Your task to perform on an android device: change timer sound Image 0: 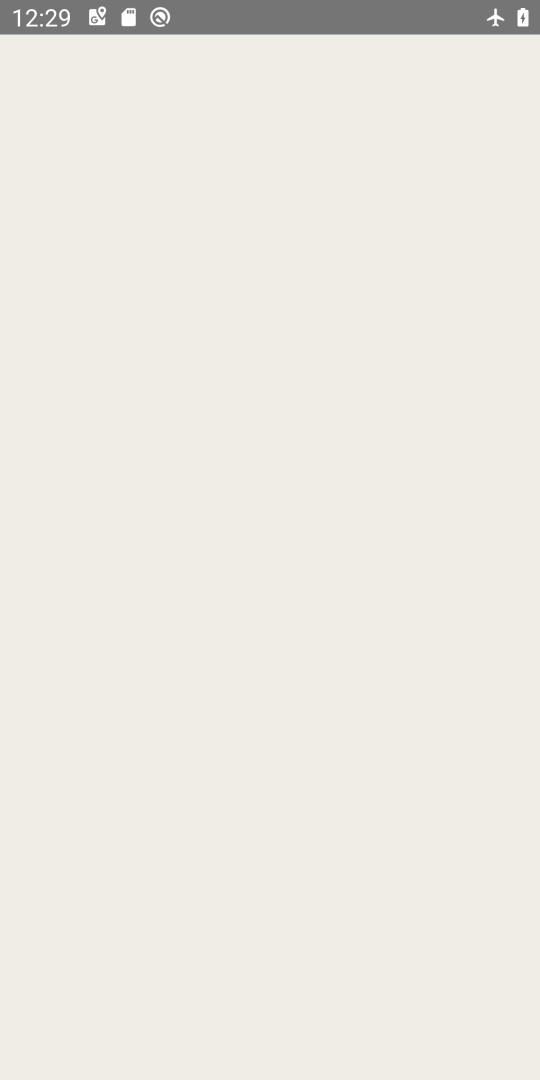
Step 0: press home button
Your task to perform on an android device: change timer sound Image 1: 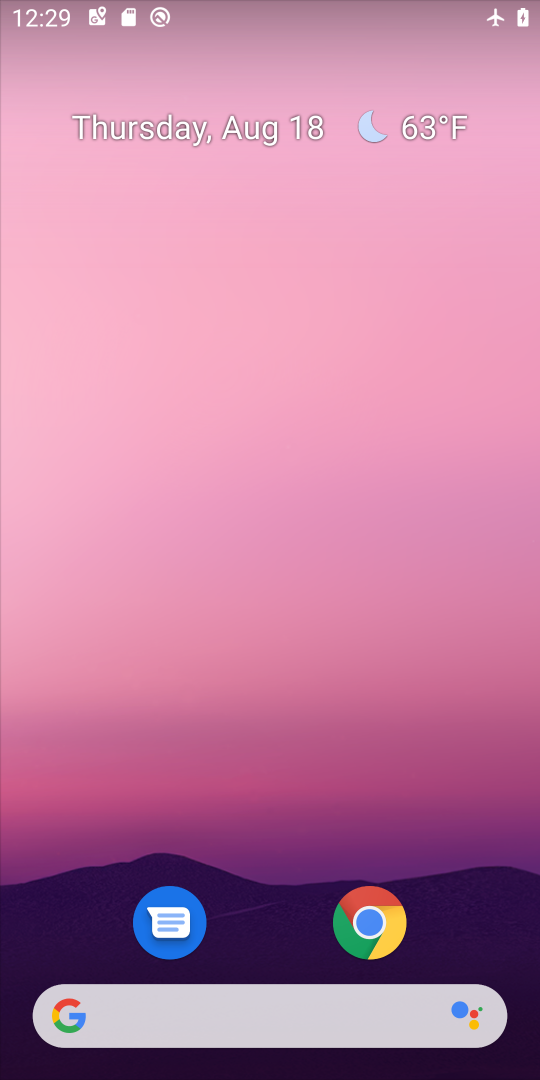
Step 1: drag from (300, 830) to (233, 169)
Your task to perform on an android device: change timer sound Image 2: 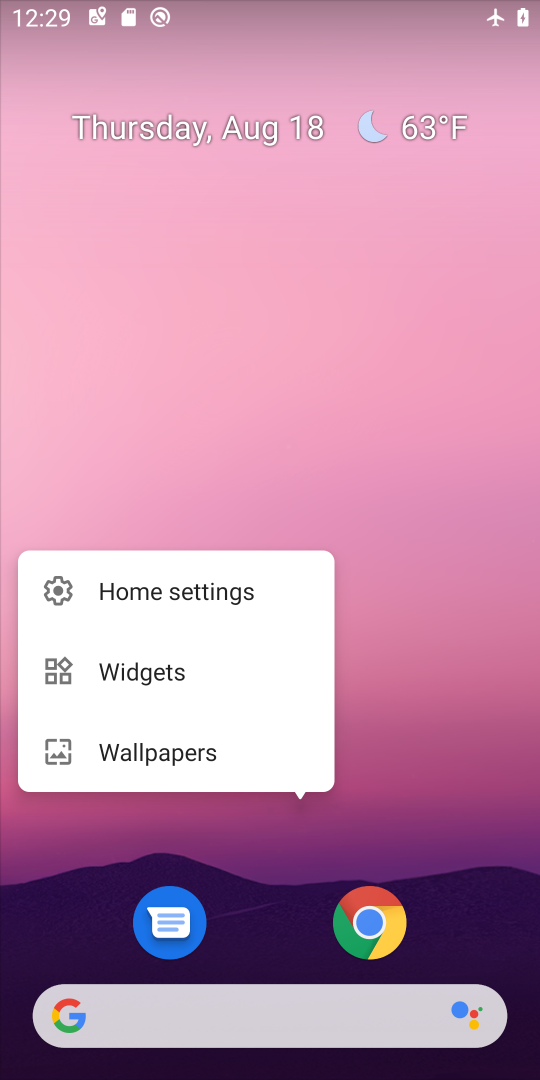
Step 2: click (277, 403)
Your task to perform on an android device: change timer sound Image 3: 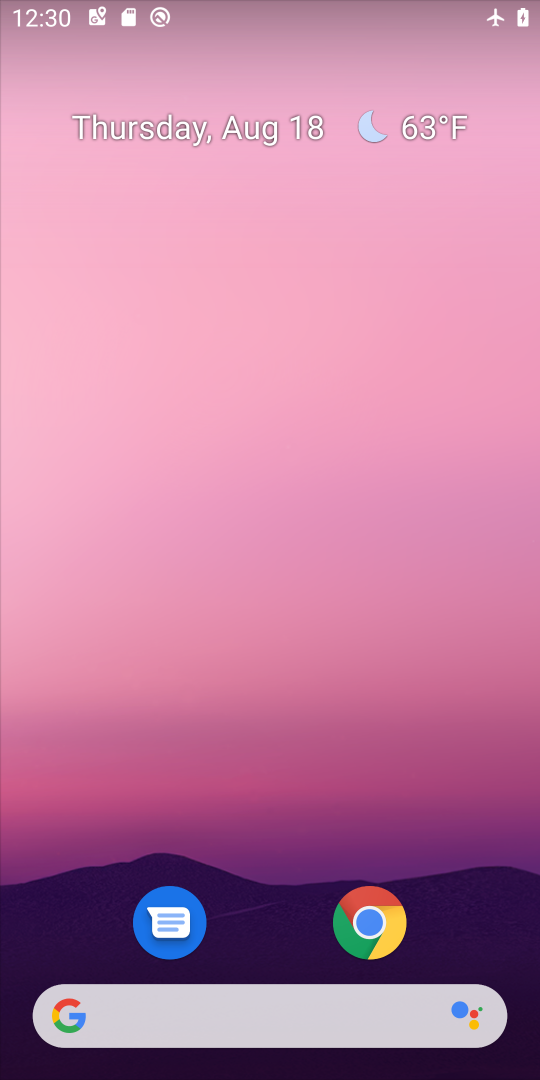
Step 3: drag from (281, 860) to (227, 216)
Your task to perform on an android device: change timer sound Image 4: 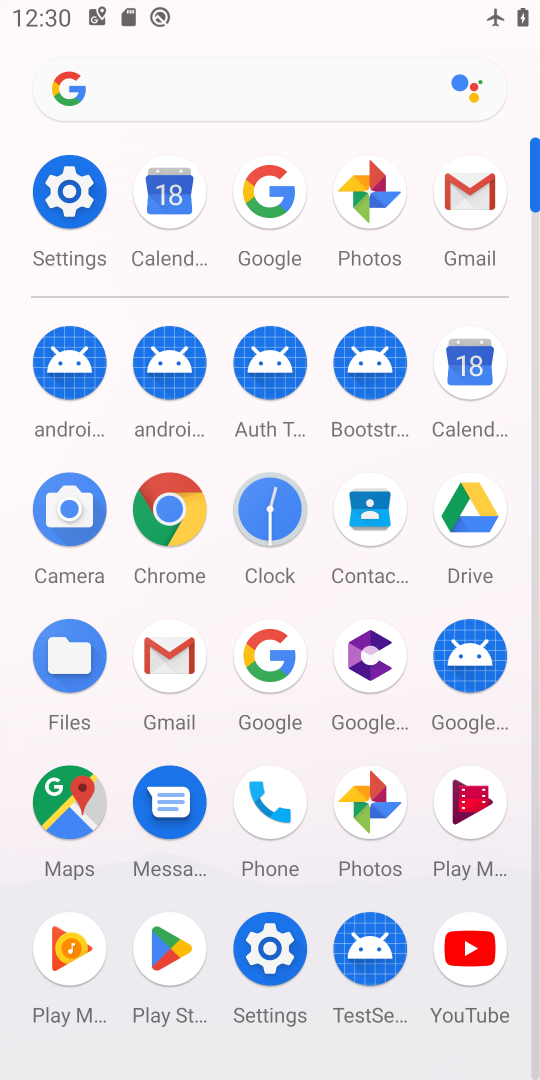
Step 4: click (269, 507)
Your task to perform on an android device: change timer sound Image 5: 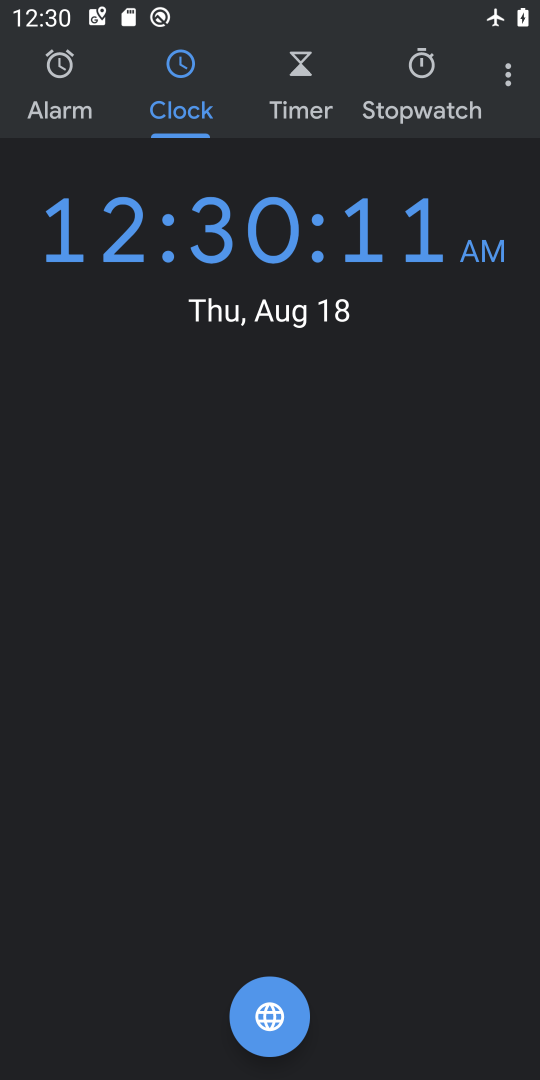
Step 5: click (505, 74)
Your task to perform on an android device: change timer sound Image 6: 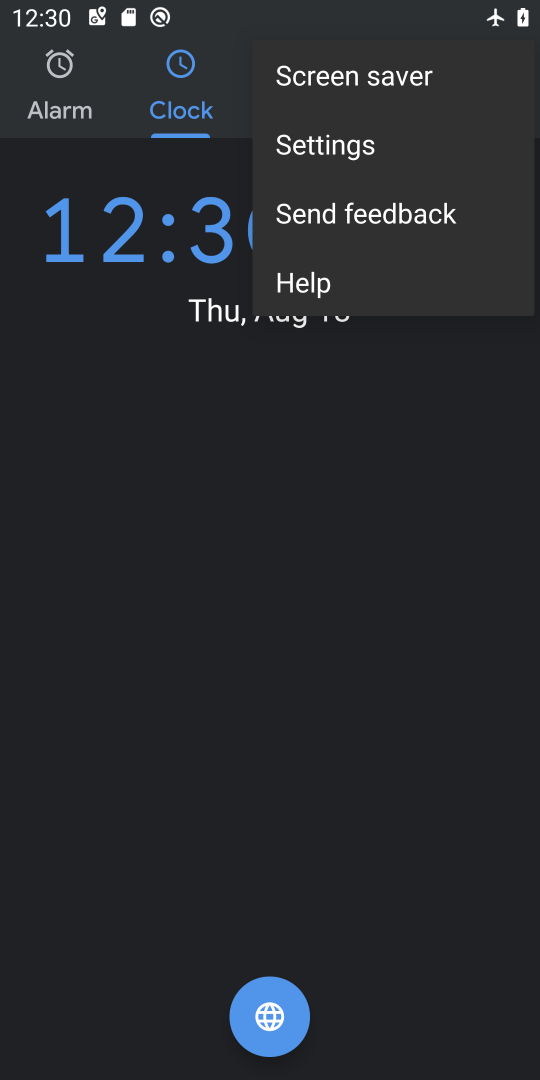
Step 6: click (349, 139)
Your task to perform on an android device: change timer sound Image 7: 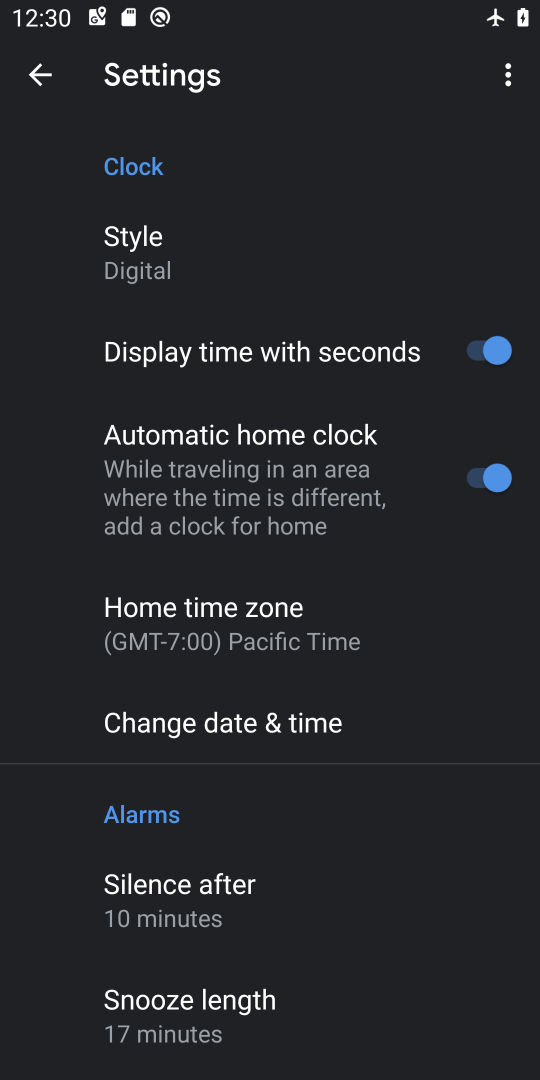
Step 7: drag from (323, 926) to (298, 650)
Your task to perform on an android device: change timer sound Image 8: 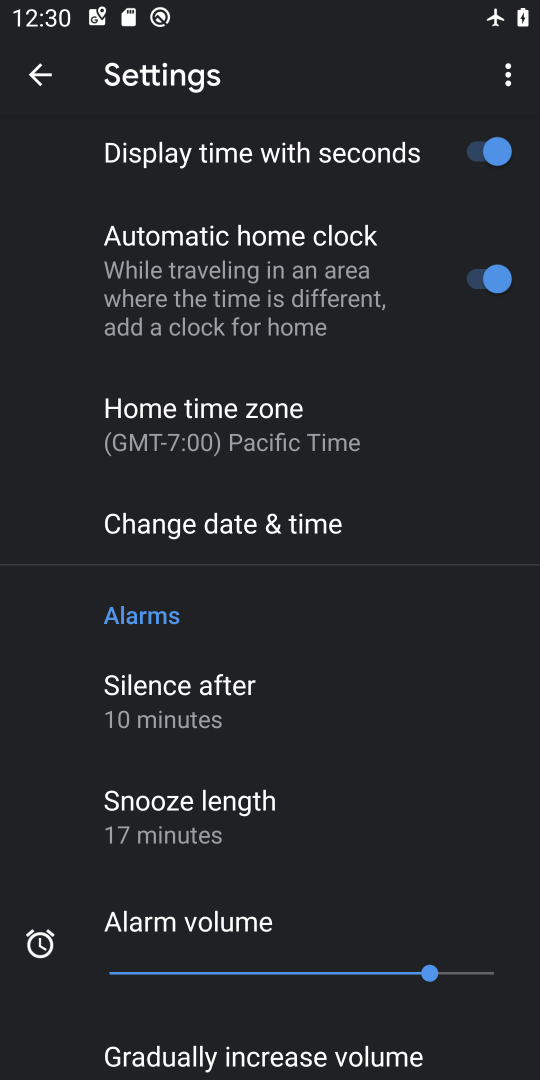
Step 8: drag from (348, 851) to (325, 612)
Your task to perform on an android device: change timer sound Image 9: 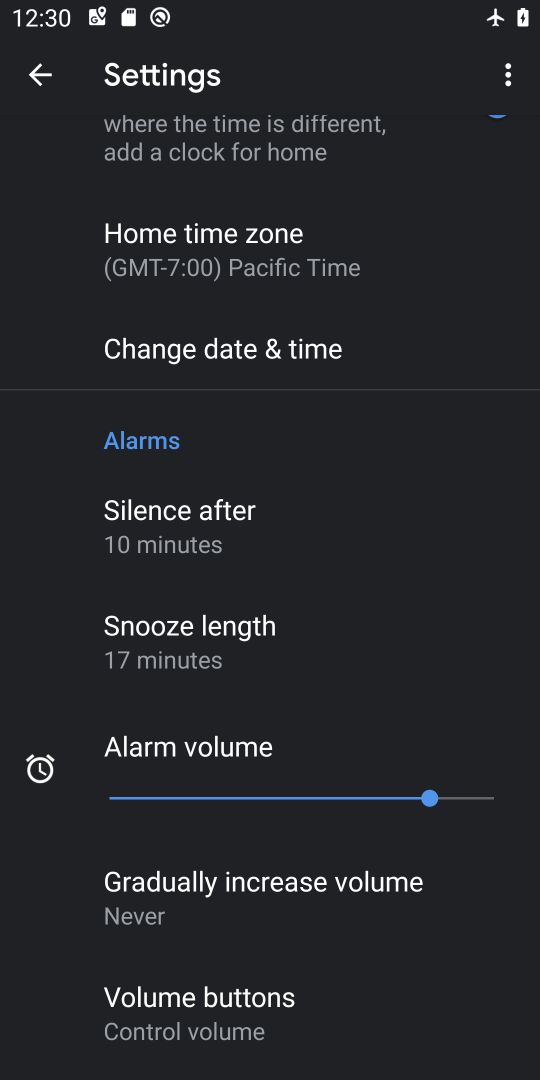
Step 9: drag from (313, 932) to (296, 608)
Your task to perform on an android device: change timer sound Image 10: 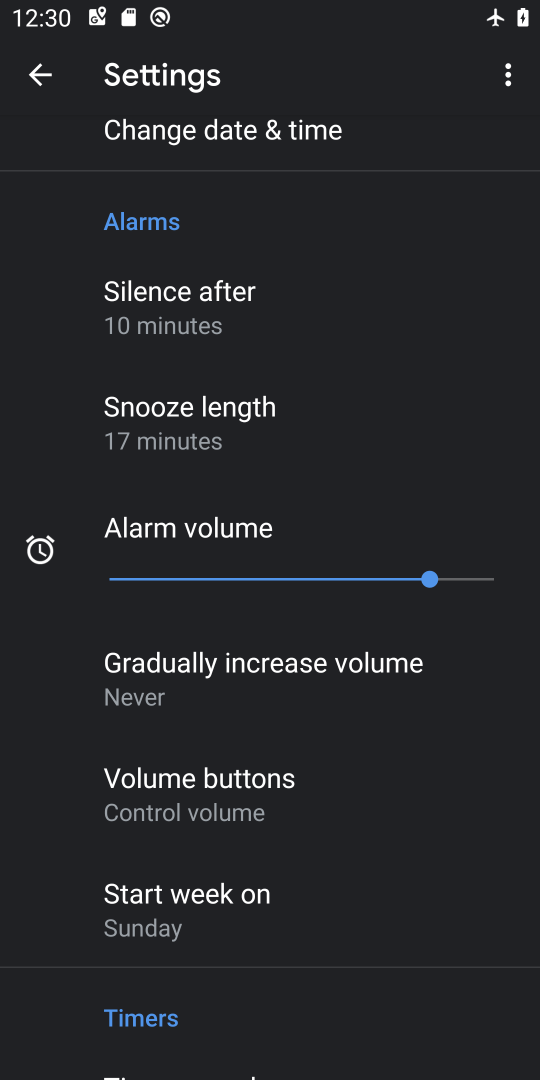
Step 10: drag from (294, 982) to (255, 691)
Your task to perform on an android device: change timer sound Image 11: 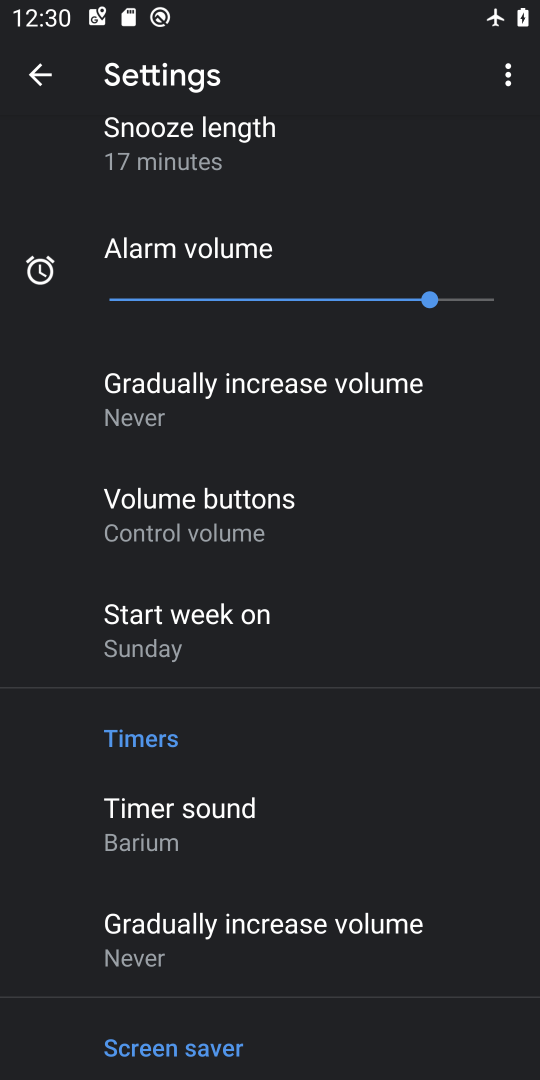
Step 11: click (193, 812)
Your task to perform on an android device: change timer sound Image 12: 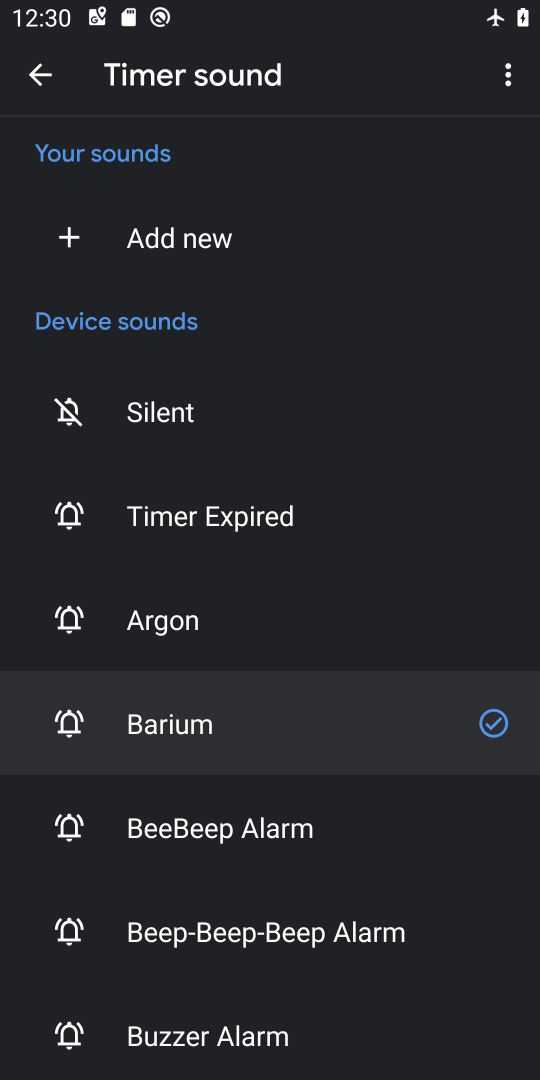
Step 12: click (171, 508)
Your task to perform on an android device: change timer sound Image 13: 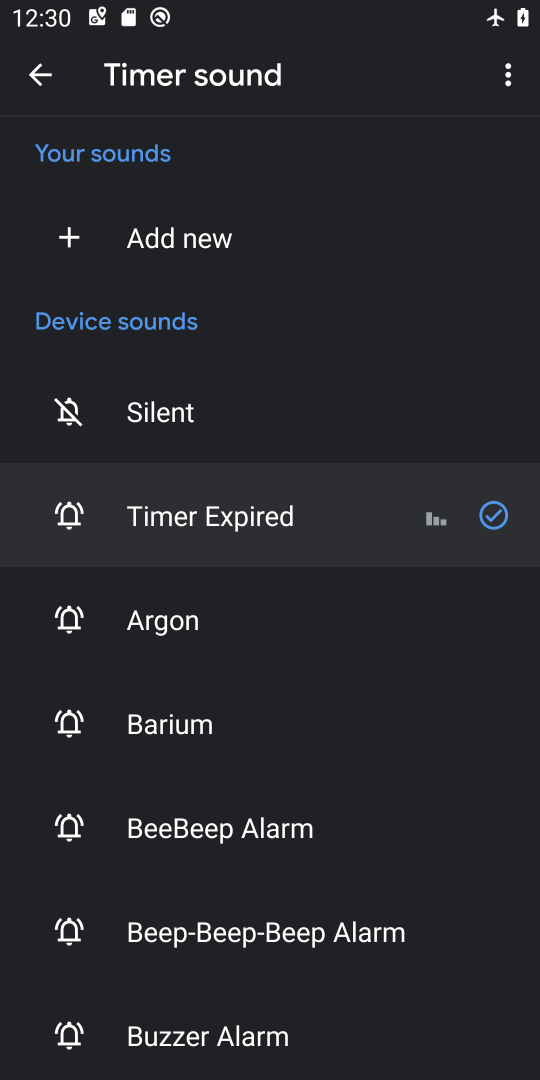
Step 13: task complete